Your task to perform on an android device: open wifi settings Image 0: 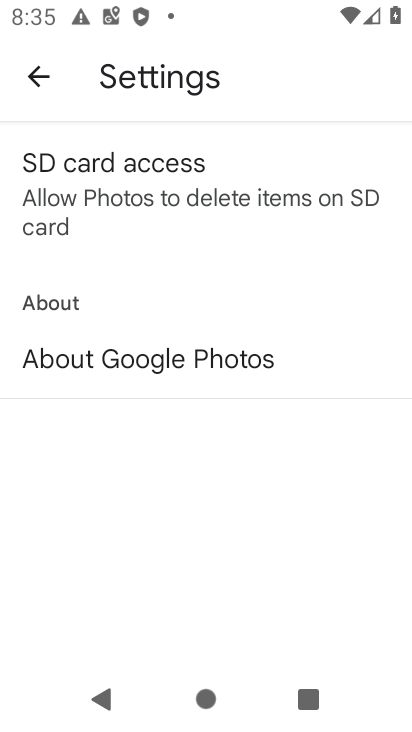
Step 0: press home button
Your task to perform on an android device: open wifi settings Image 1: 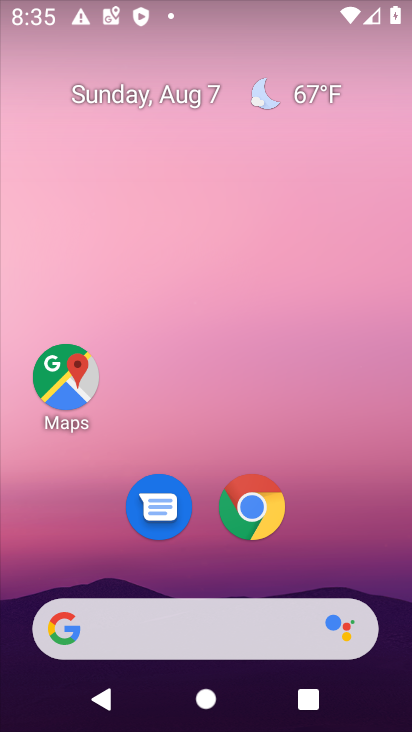
Step 1: click (243, 216)
Your task to perform on an android device: open wifi settings Image 2: 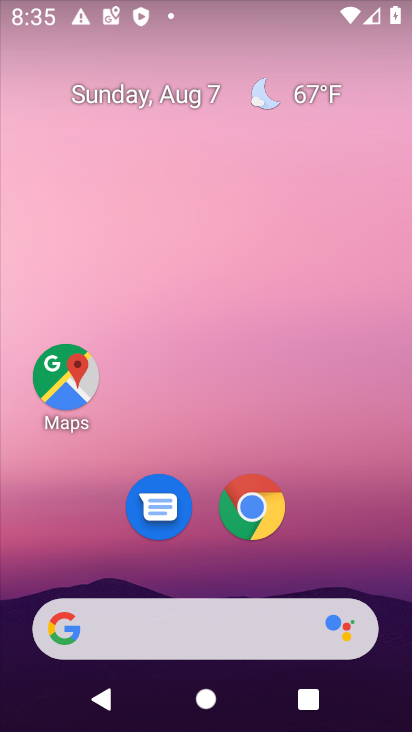
Step 2: drag from (156, 641) to (288, 145)
Your task to perform on an android device: open wifi settings Image 3: 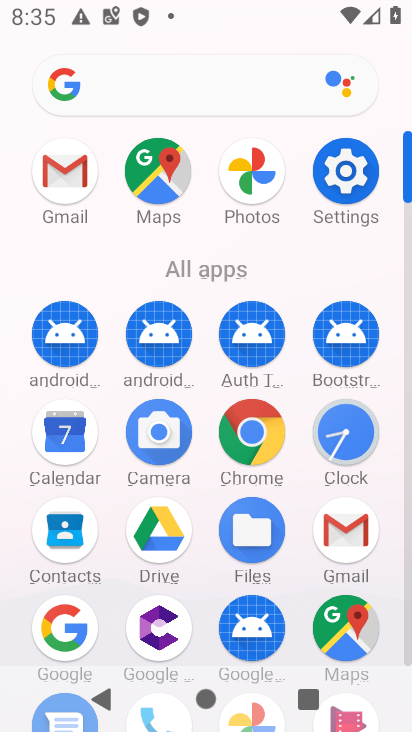
Step 3: click (342, 171)
Your task to perform on an android device: open wifi settings Image 4: 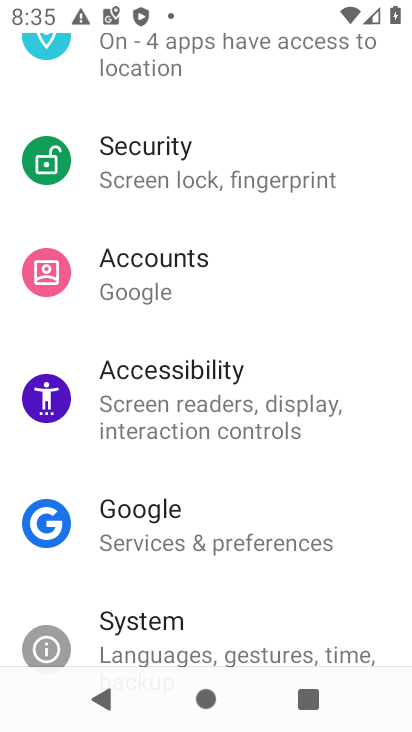
Step 4: drag from (367, 109) to (277, 656)
Your task to perform on an android device: open wifi settings Image 5: 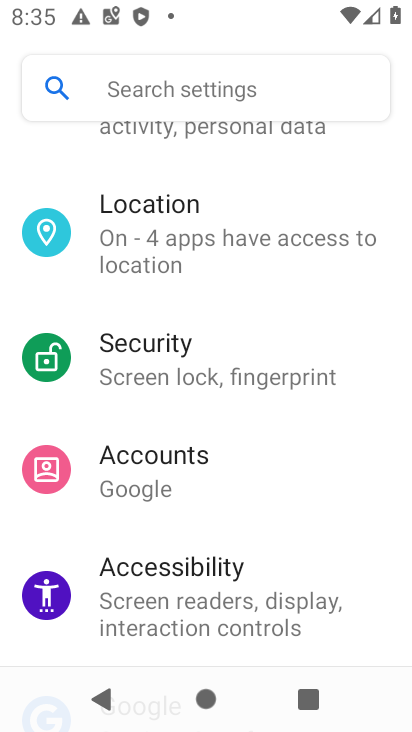
Step 5: drag from (350, 173) to (290, 663)
Your task to perform on an android device: open wifi settings Image 6: 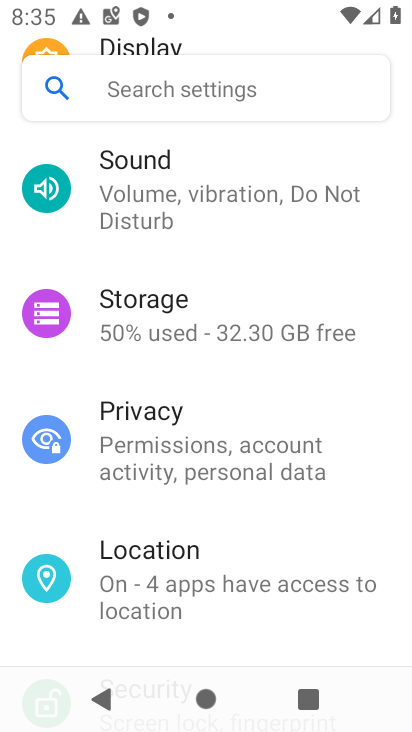
Step 6: drag from (333, 252) to (270, 699)
Your task to perform on an android device: open wifi settings Image 7: 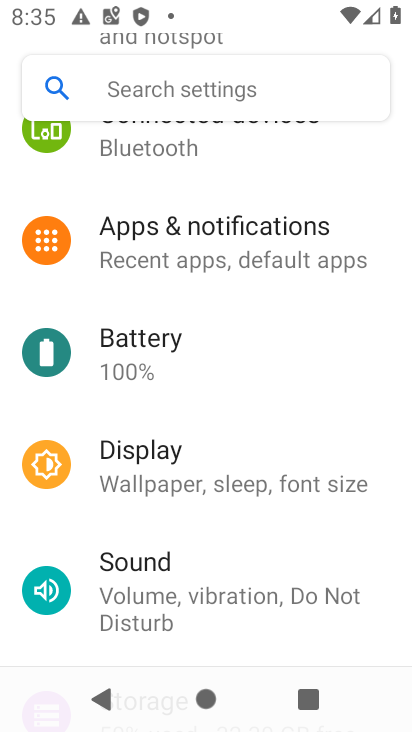
Step 7: drag from (331, 151) to (319, 583)
Your task to perform on an android device: open wifi settings Image 8: 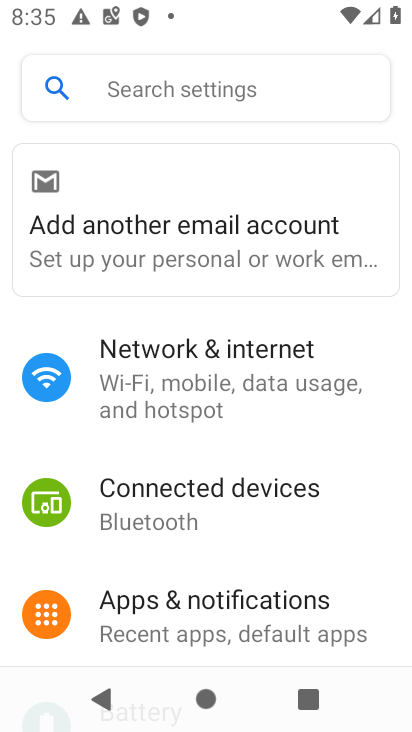
Step 8: click (207, 384)
Your task to perform on an android device: open wifi settings Image 9: 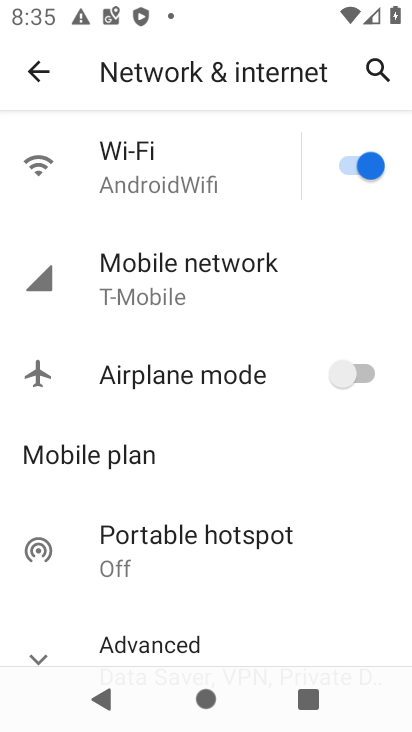
Step 9: click (131, 164)
Your task to perform on an android device: open wifi settings Image 10: 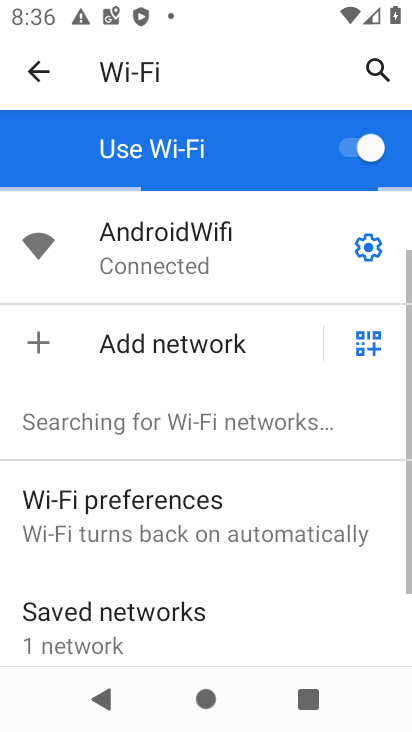
Step 10: task complete